Your task to perform on an android device: change notification settings in the gmail app Image 0: 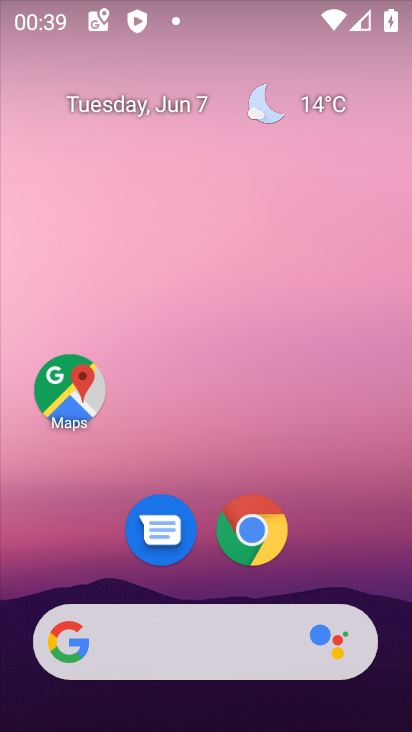
Step 0: drag from (305, 566) to (309, 290)
Your task to perform on an android device: change notification settings in the gmail app Image 1: 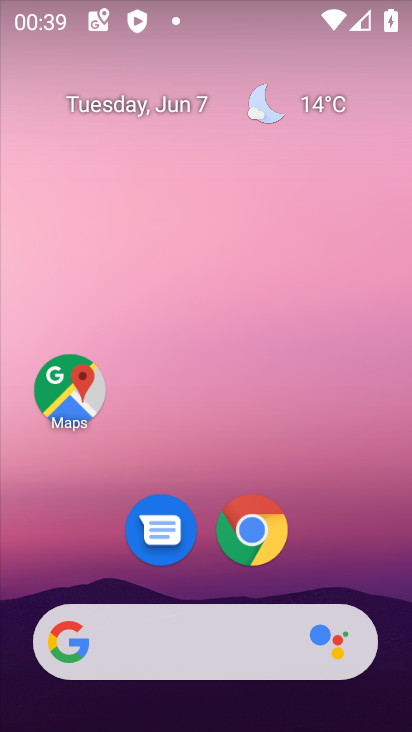
Step 1: drag from (211, 615) to (246, 258)
Your task to perform on an android device: change notification settings in the gmail app Image 2: 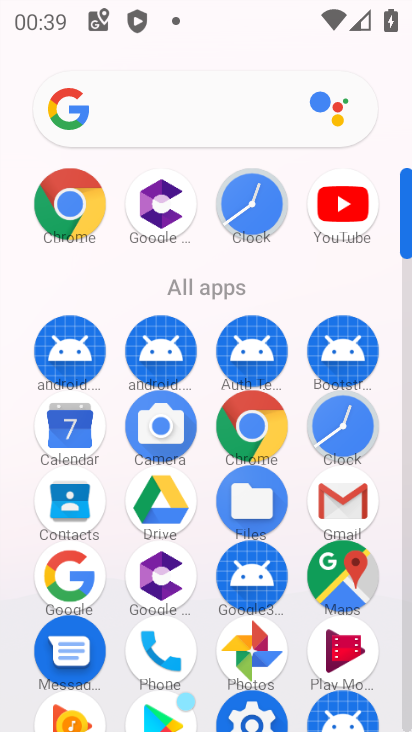
Step 2: click (336, 496)
Your task to perform on an android device: change notification settings in the gmail app Image 3: 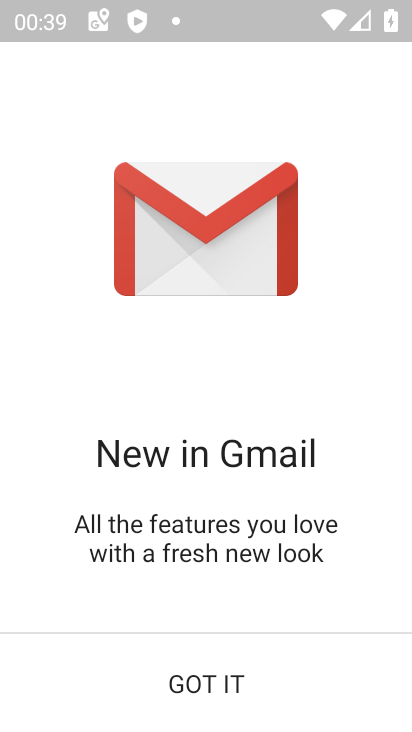
Step 3: click (226, 664)
Your task to perform on an android device: change notification settings in the gmail app Image 4: 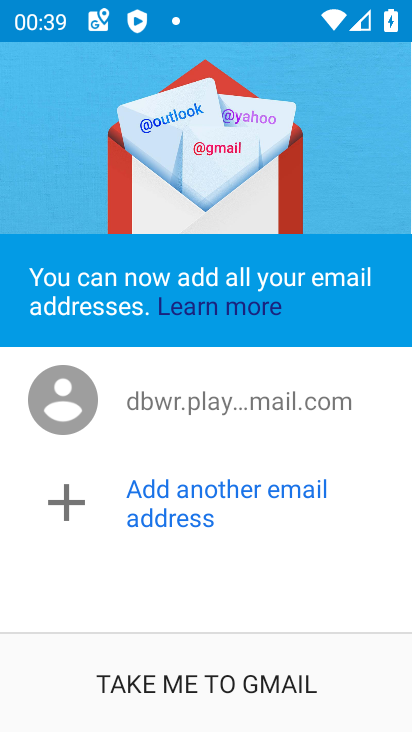
Step 4: click (238, 685)
Your task to perform on an android device: change notification settings in the gmail app Image 5: 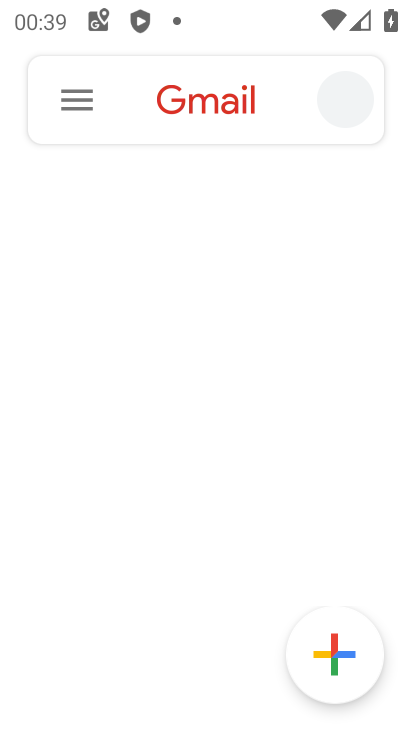
Step 5: click (238, 685)
Your task to perform on an android device: change notification settings in the gmail app Image 6: 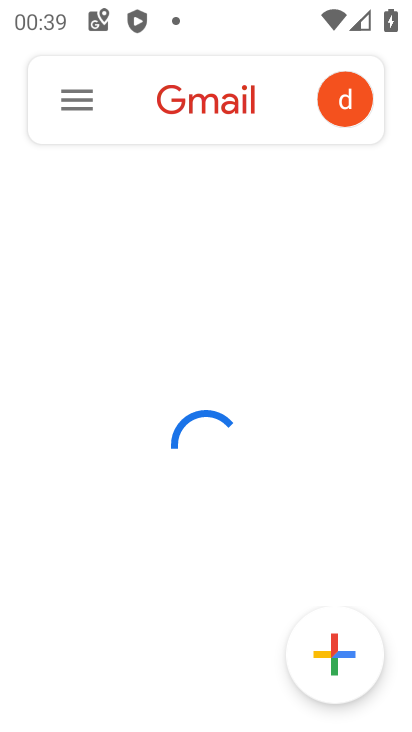
Step 6: click (70, 90)
Your task to perform on an android device: change notification settings in the gmail app Image 7: 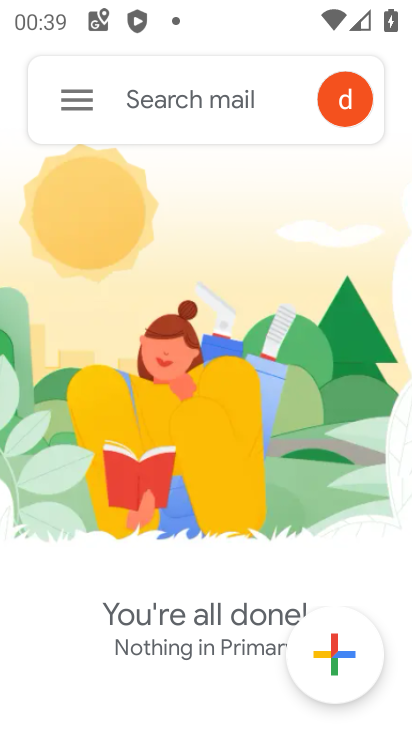
Step 7: click (70, 101)
Your task to perform on an android device: change notification settings in the gmail app Image 8: 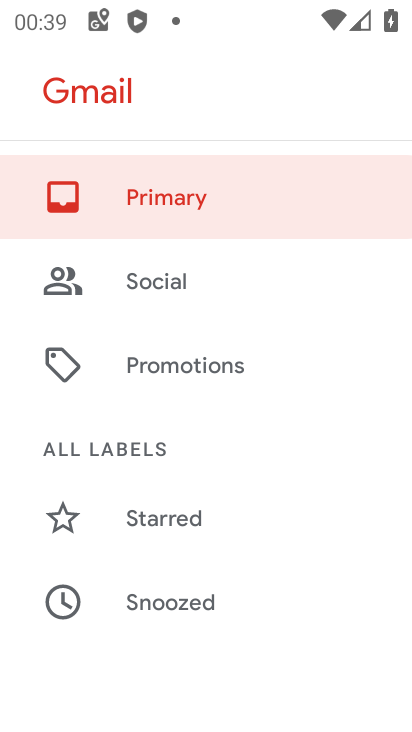
Step 8: drag from (236, 608) to (244, 236)
Your task to perform on an android device: change notification settings in the gmail app Image 9: 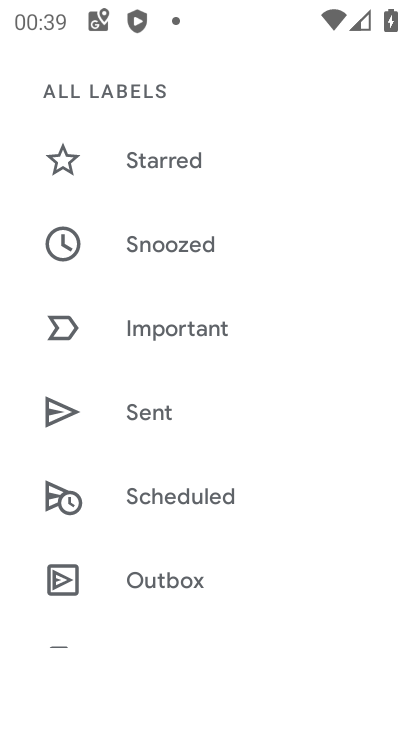
Step 9: drag from (182, 607) to (212, 193)
Your task to perform on an android device: change notification settings in the gmail app Image 10: 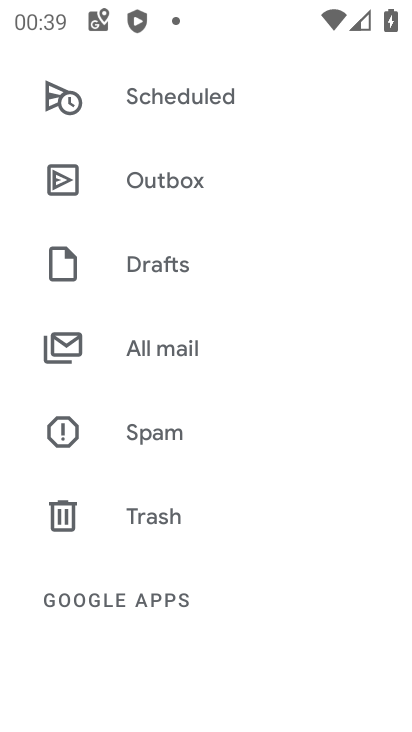
Step 10: drag from (196, 580) to (251, 207)
Your task to perform on an android device: change notification settings in the gmail app Image 11: 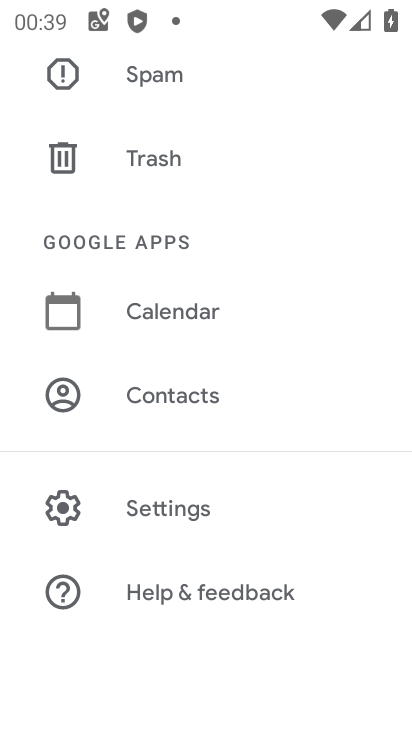
Step 11: click (173, 512)
Your task to perform on an android device: change notification settings in the gmail app Image 12: 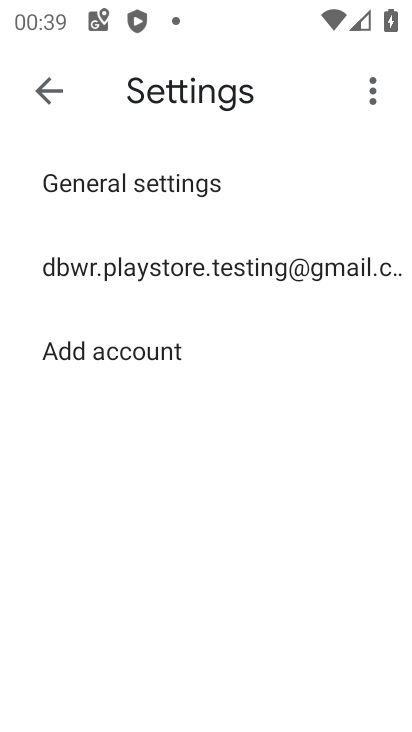
Step 12: click (143, 263)
Your task to perform on an android device: change notification settings in the gmail app Image 13: 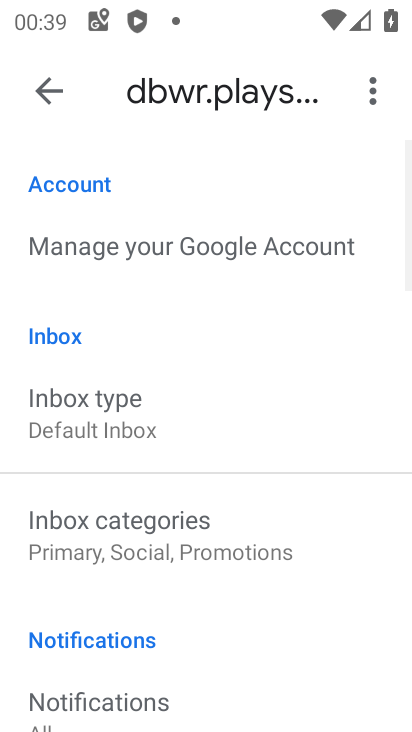
Step 13: drag from (140, 628) to (163, 429)
Your task to perform on an android device: change notification settings in the gmail app Image 14: 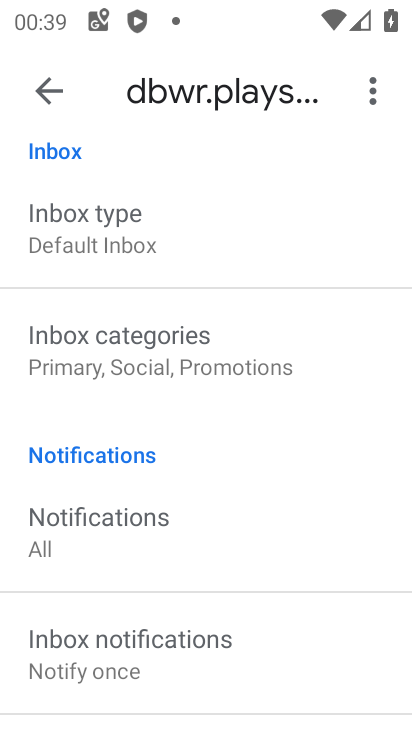
Step 14: click (95, 553)
Your task to perform on an android device: change notification settings in the gmail app Image 15: 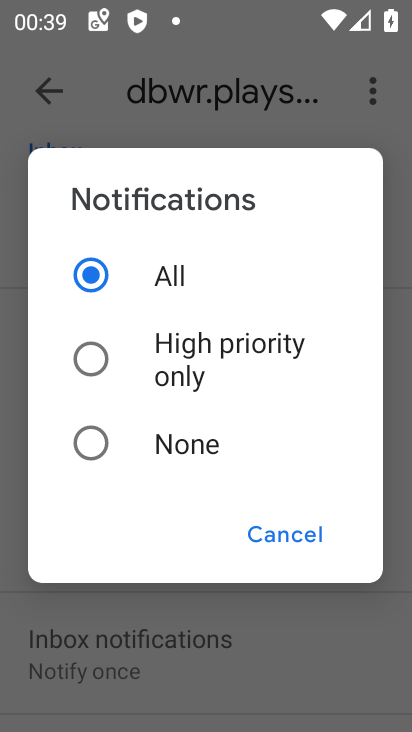
Step 15: click (155, 435)
Your task to perform on an android device: change notification settings in the gmail app Image 16: 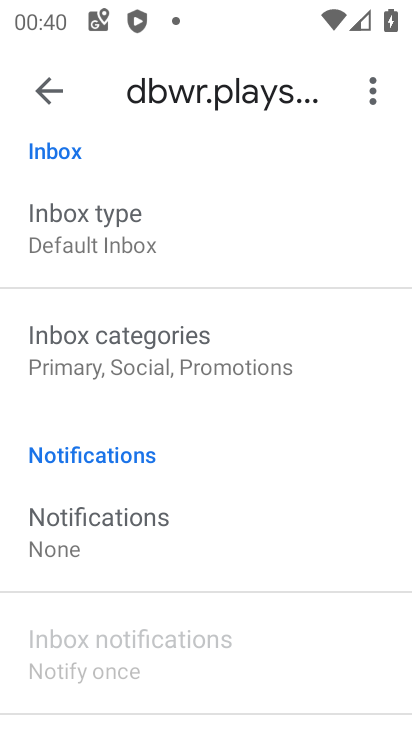
Step 16: task complete